Your task to perform on an android device: Open Yahoo.com Image 0: 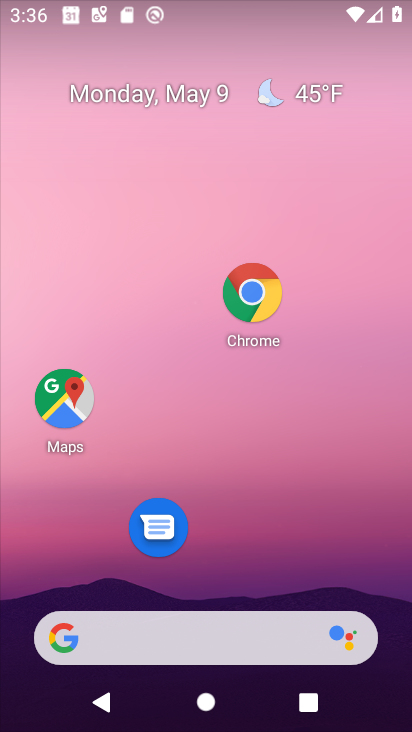
Step 0: click (248, 305)
Your task to perform on an android device: Open Yahoo.com Image 1: 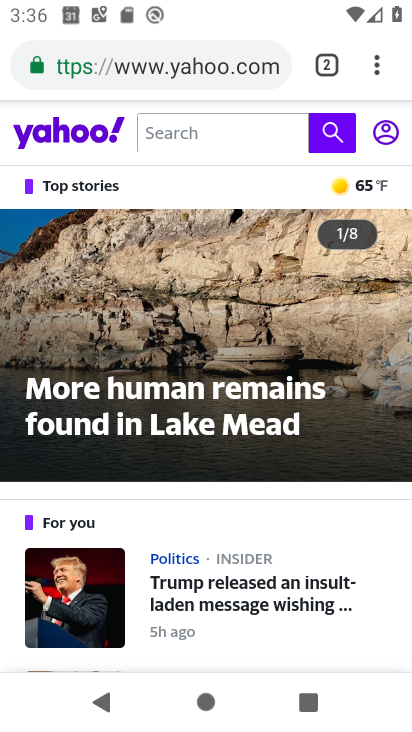
Step 1: task complete